Your task to perform on an android device: Go to internet settings Image 0: 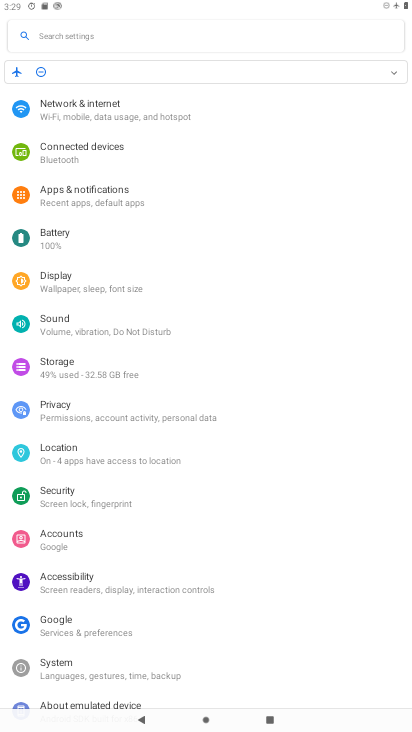
Step 0: drag from (366, 642) to (411, 454)
Your task to perform on an android device: Go to internet settings Image 1: 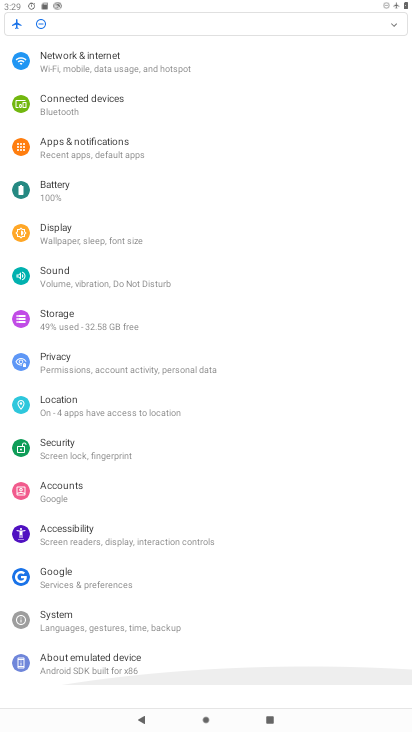
Step 1: press home button
Your task to perform on an android device: Go to internet settings Image 2: 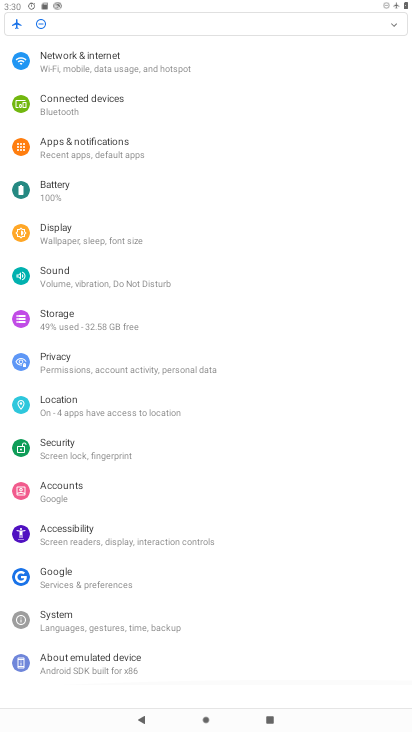
Step 2: drag from (411, 454) to (362, 229)
Your task to perform on an android device: Go to internet settings Image 3: 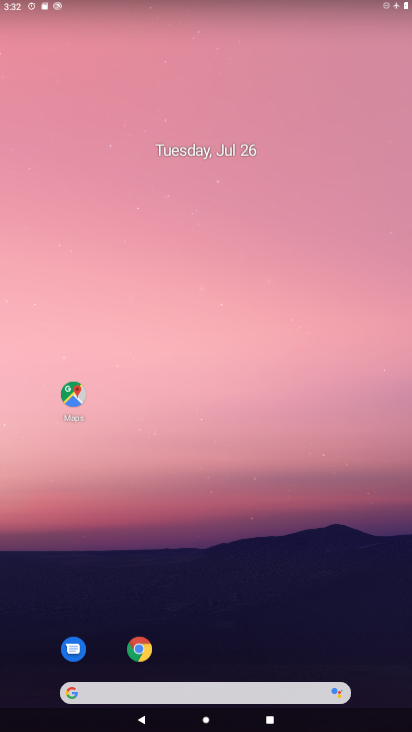
Step 3: drag from (306, 604) to (221, 10)
Your task to perform on an android device: Go to internet settings Image 4: 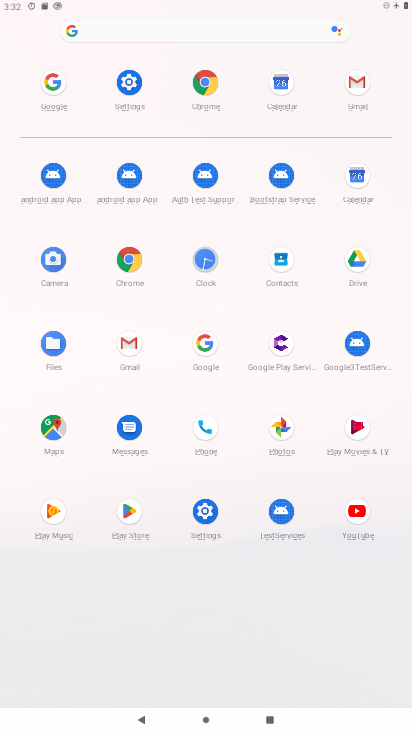
Step 4: click (131, 86)
Your task to perform on an android device: Go to internet settings Image 5: 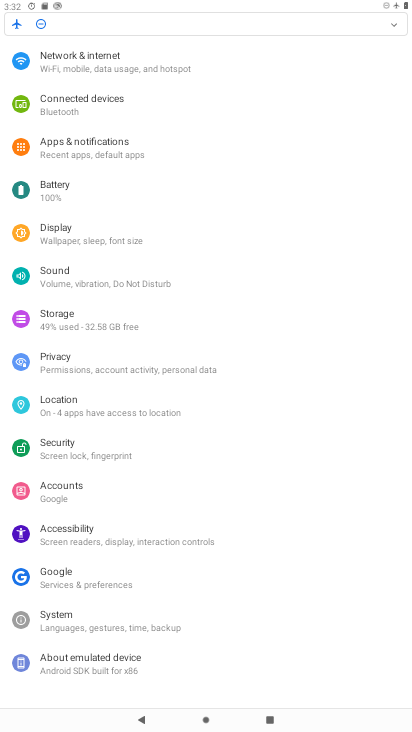
Step 5: click (125, 66)
Your task to perform on an android device: Go to internet settings Image 6: 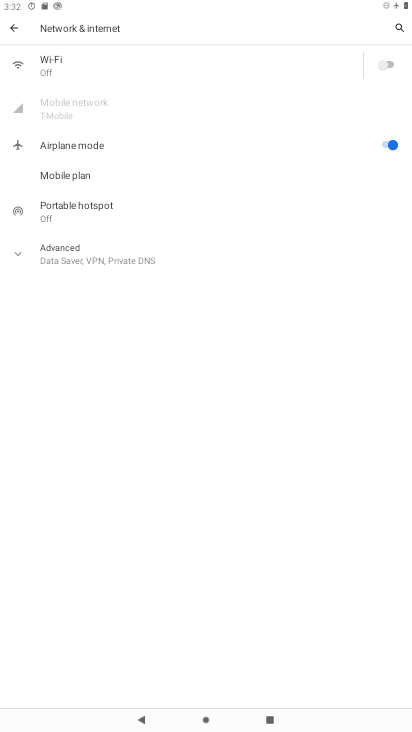
Step 6: task complete